Your task to perform on an android device: turn on javascript in the chrome app Image 0: 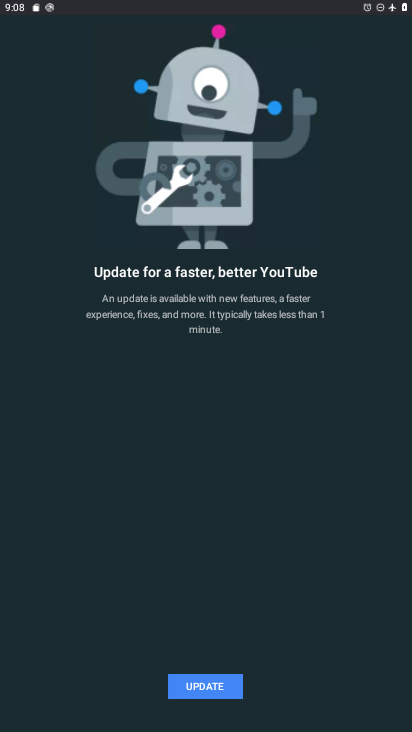
Step 0: press home button
Your task to perform on an android device: turn on javascript in the chrome app Image 1: 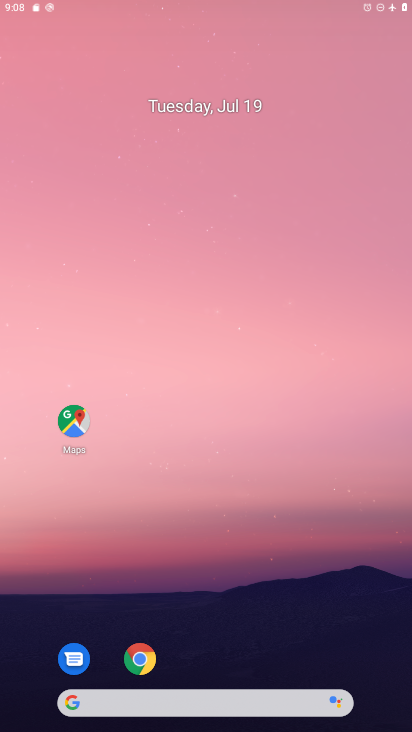
Step 1: drag from (228, 654) to (228, 412)
Your task to perform on an android device: turn on javascript in the chrome app Image 2: 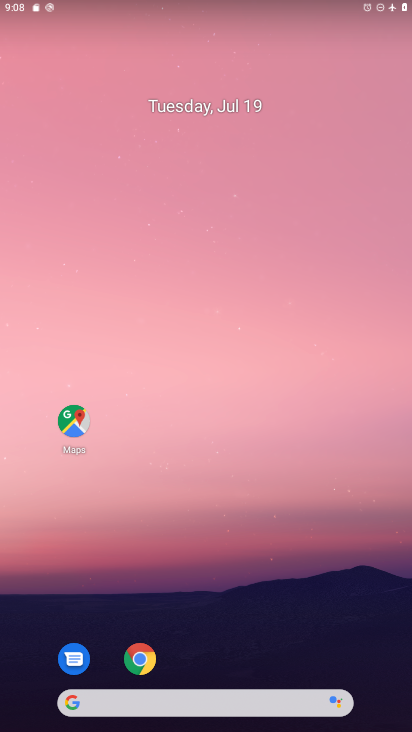
Step 2: drag from (200, 677) to (231, 263)
Your task to perform on an android device: turn on javascript in the chrome app Image 3: 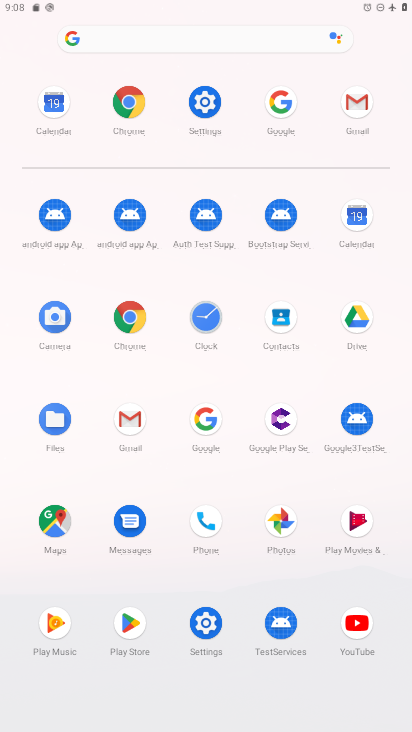
Step 3: click (142, 312)
Your task to perform on an android device: turn on javascript in the chrome app Image 4: 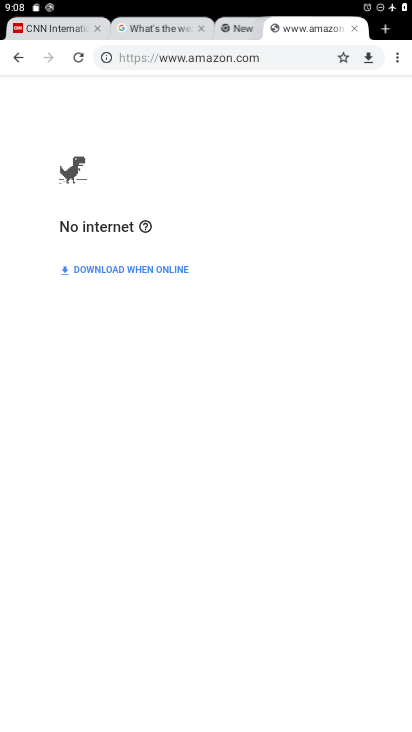
Step 4: click (404, 43)
Your task to perform on an android device: turn on javascript in the chrome app Image 5: 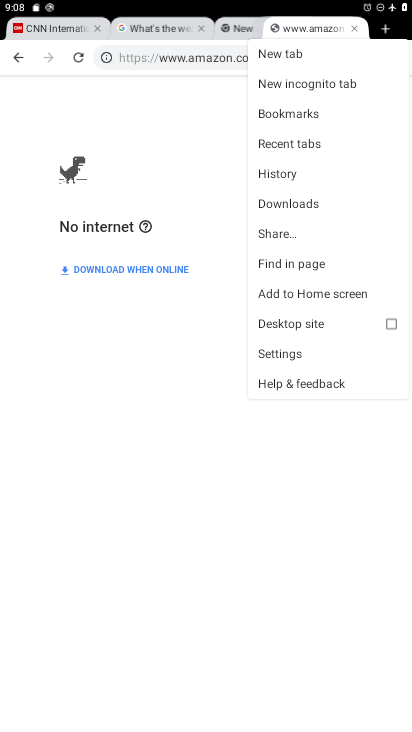
Step 5: click (293, 352)
Your task to perform on an android device: turn on javascript in the chrome app Image 6: 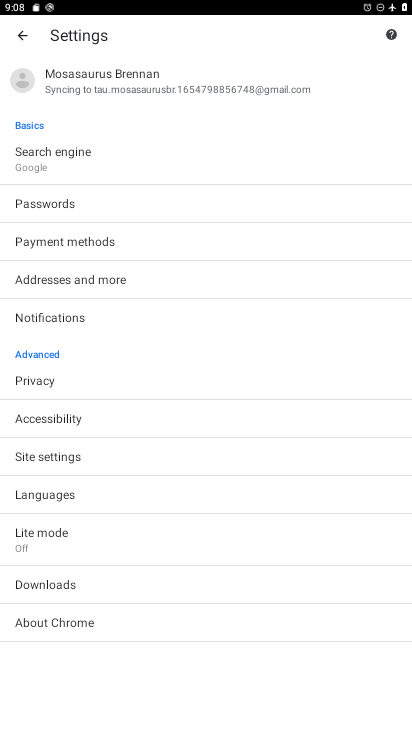
Step 6: click (104, 447)
Your task to perform on an android device: turn on javascript in the chrome app Image 7: 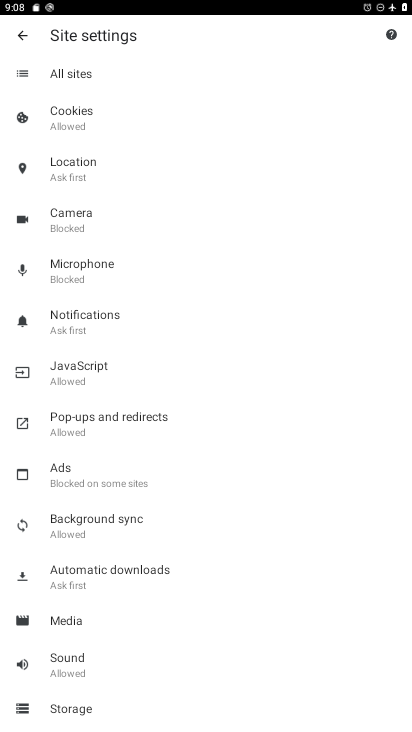
Step 7: click (66, 382)
Your task to perform on an android device: turn on javascript in the chrome app Image 8: 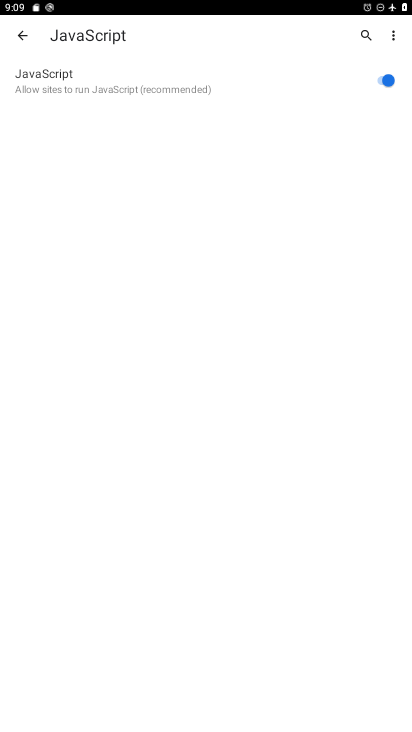
Step 8: task complete